Your task to perform on an android device: Go to notification settings Image 0: 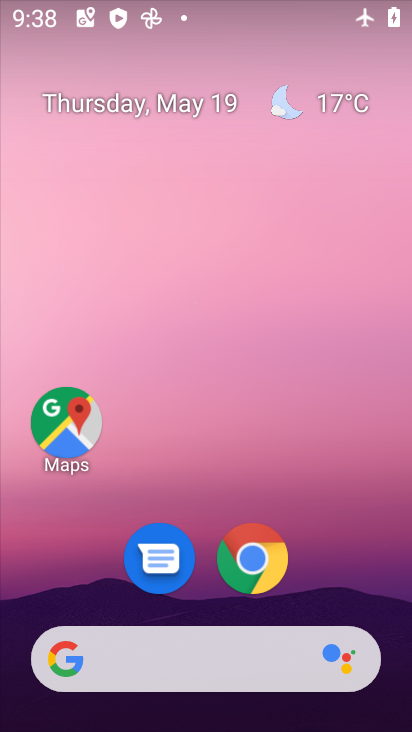
Step 0: drag from (189, 728) to (195, 144)
Your task to perform on an android device: Go to notification settings Image 1: 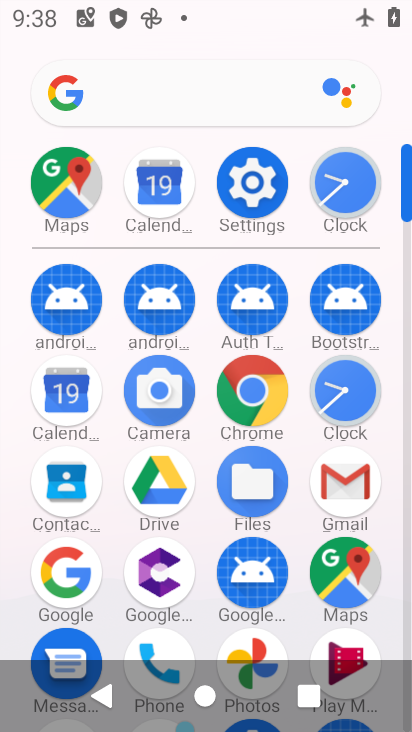
Step 1: click (257, 193)
Your task to perform on an android device: Go to notification settings Image 2: 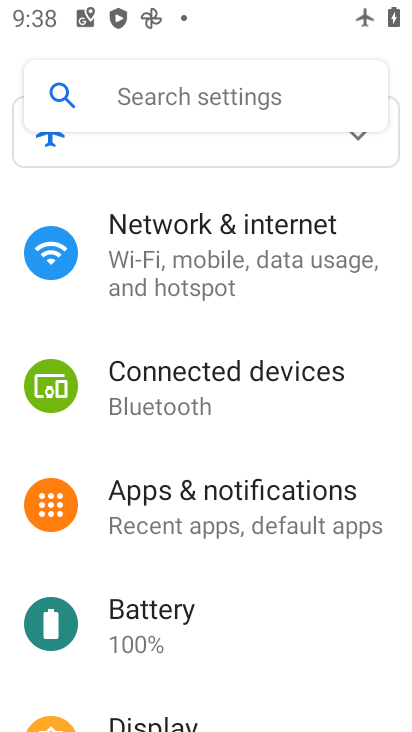
Step 2: click (219, 500)
Your task to perform on an android device: Go to notification settings Image 3: 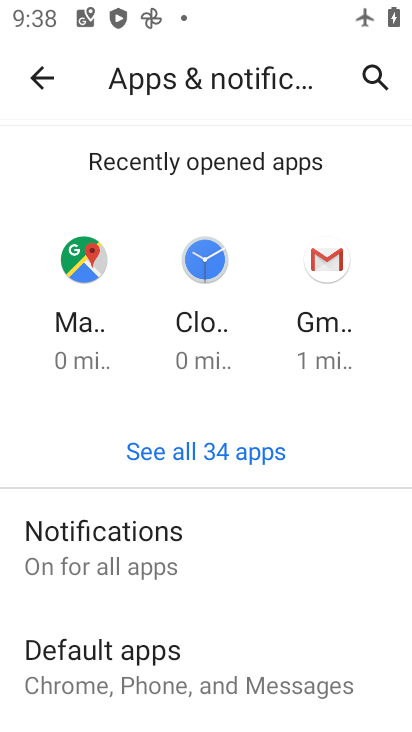
Step 3: click (118, 543)
Your task to perform on an android device: Go to notification settings Image 4: 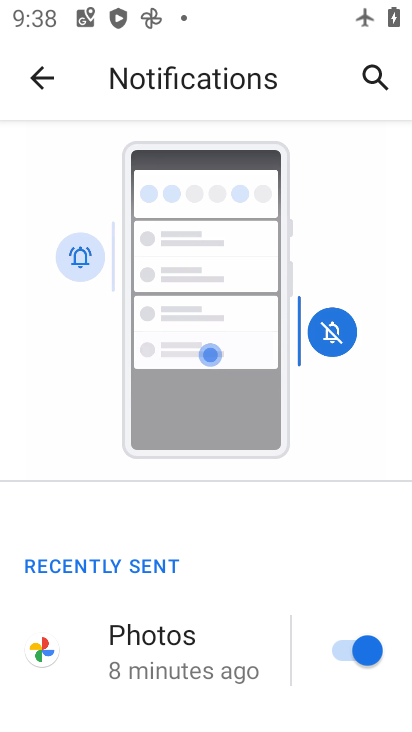
Step 4: task complete